Your task to perform on an android device: Show me popular games on the Play Store Image 0: 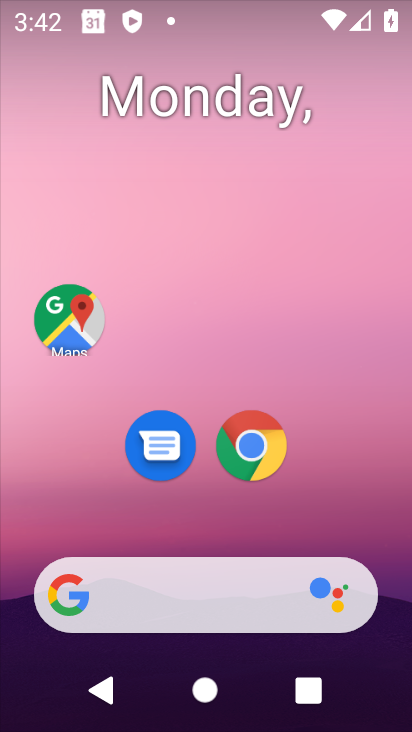
Step 0: drag from (339, 508) to (367, 389)
Your task to perform on an android device: Show me popular games on the Play Store Image 1: 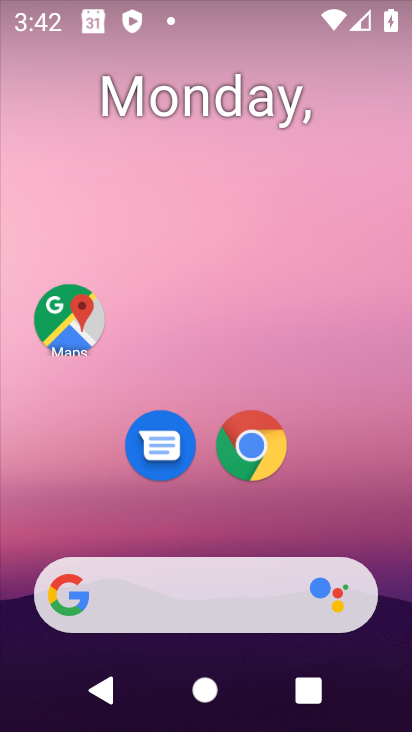
Step 1: drag from (376, 481) to (344, 56)
Your task to perform on an android device: Show me popular games on the Play Store Image 2: 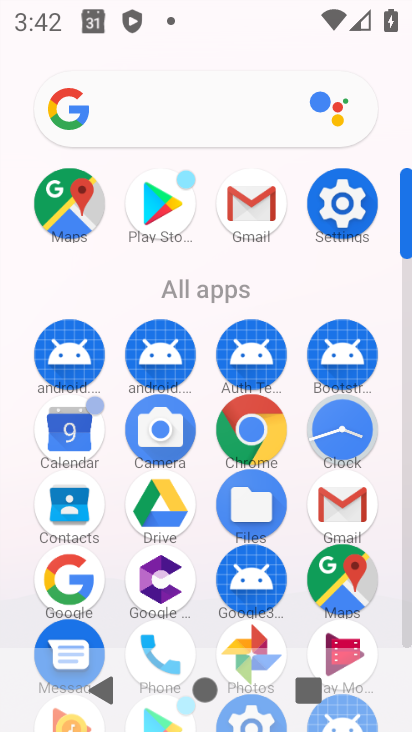
Step 2: click (157, 224)
Your task to perform on an android device: Show me popular games on the Play Store Image 3: 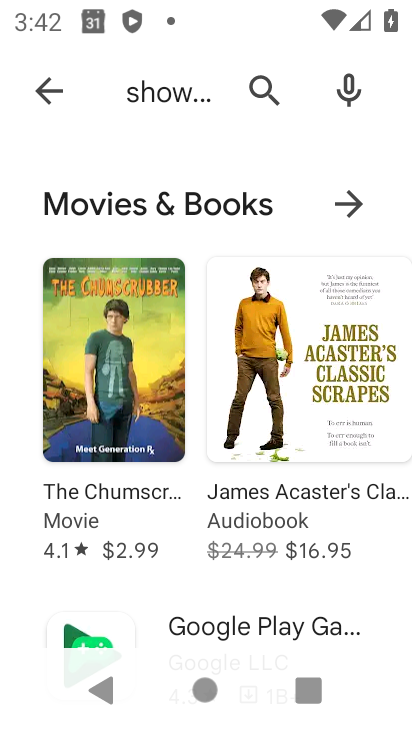
Step 3: task complete